Your task to perform on an android device: turn on the 24-hour format for clock Image 0: 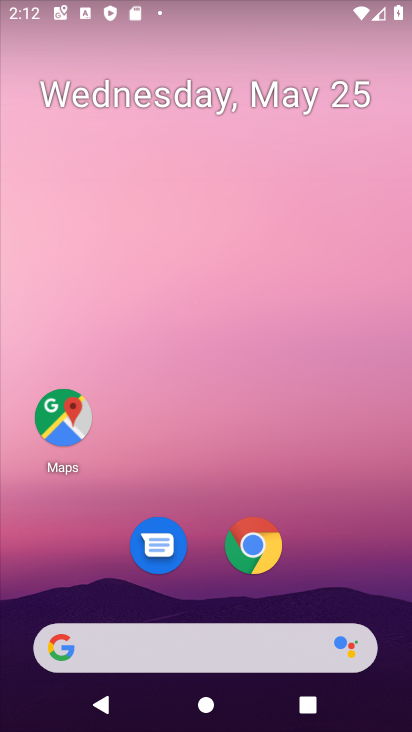
Step 0: drag from (386, 544) to (314, 108)
Your task to perform on an android device: turn on the 24-hour format for clock Image 1: 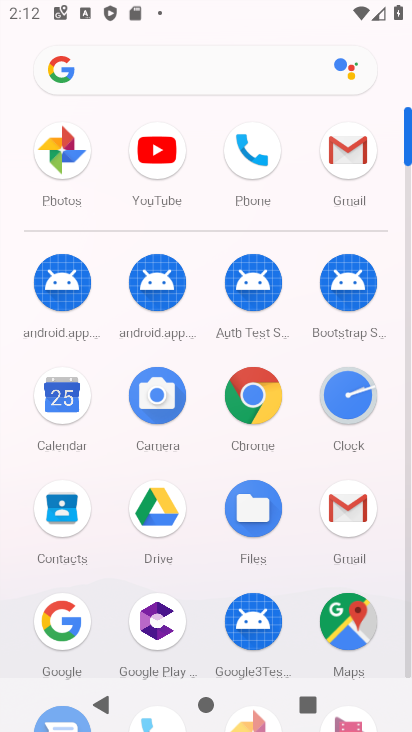
Step 1: click (344, 411)
Your task to perform on an android device: turn on the 24-hour format for clock Image 2: 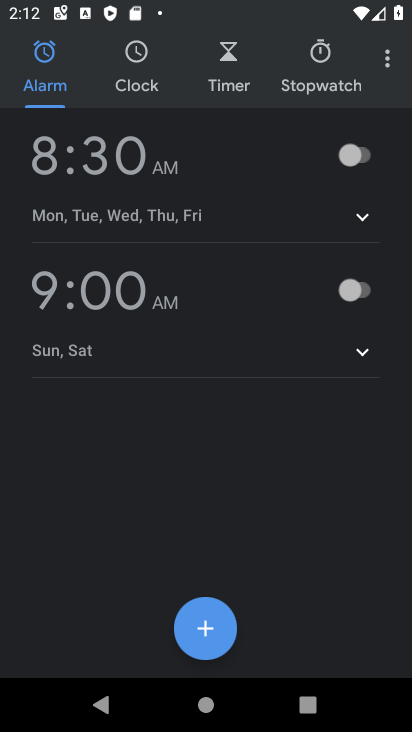
Step 2: click (388, 52)
Your task to perform on an android device: turn on the 24-hour format for clock Image 3: 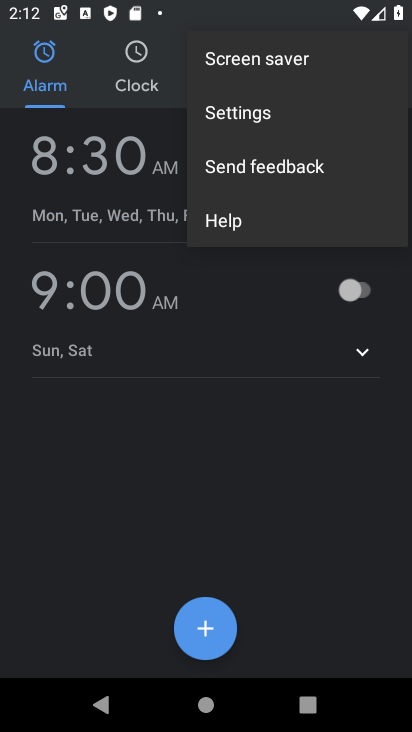
Step 3: click (284, 124)
Your task to perform on an android device: turn on the 24-hour format for clock Image 4: 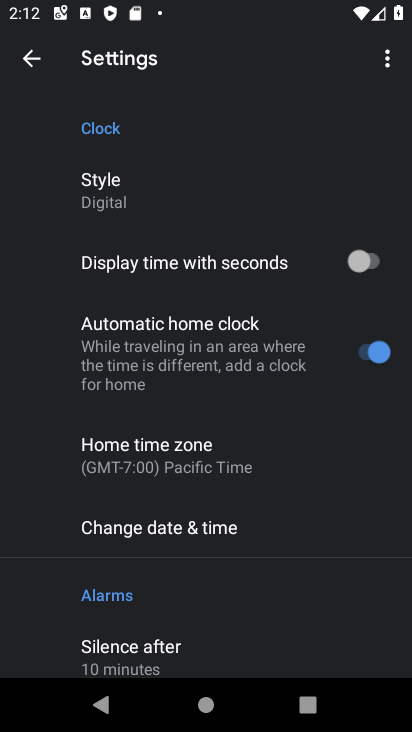
Step 4: click (250, 523)
Your task to perform on an android device: turn on the 24-hour format for clock Image 5: 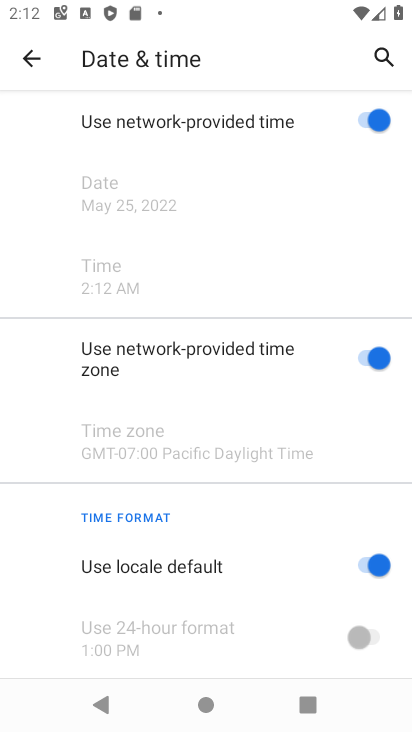
Step 5: click (367, 576)
Your task to perform on an android device: turn on the 24-hour format for clock Image 6: 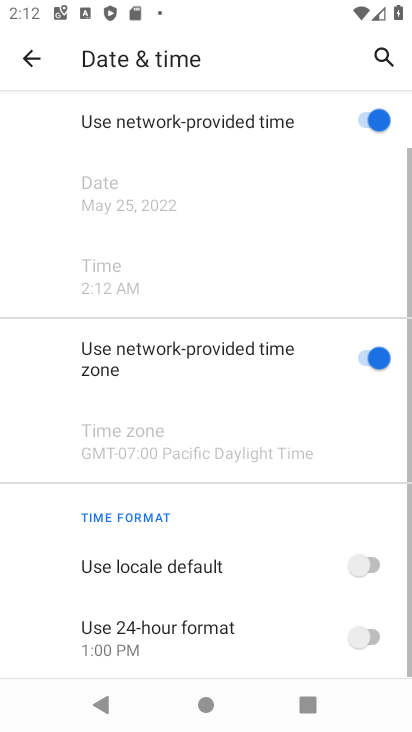
Step 6: click (367, 649)
Your task to perform on an android device: turn on the 24-hour format for clock Image 7: 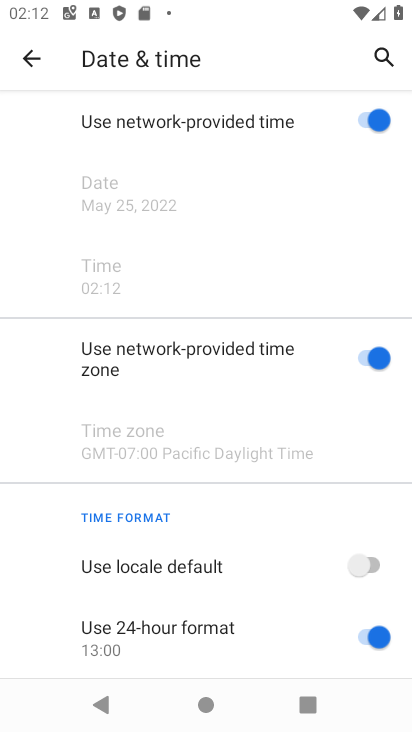
Step 7: task complete